Your task to perform on an android device: Search for the best lawnmowers on Lowes.com Image 0: 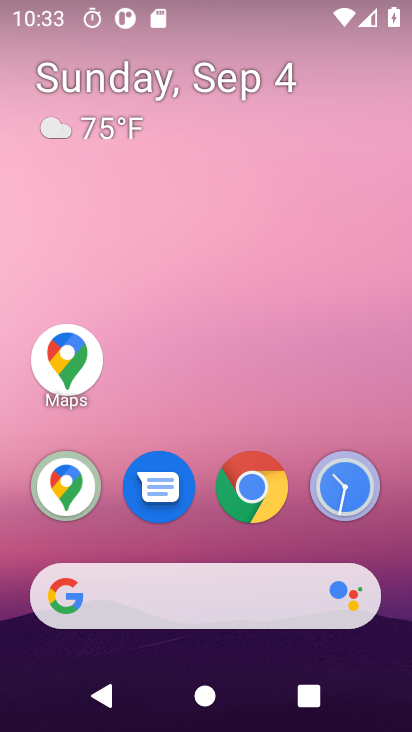
Step 0: click (270, 497)
Your task to perform on an android device: Search for the best lawnmowers on Lowes.com Image 1: 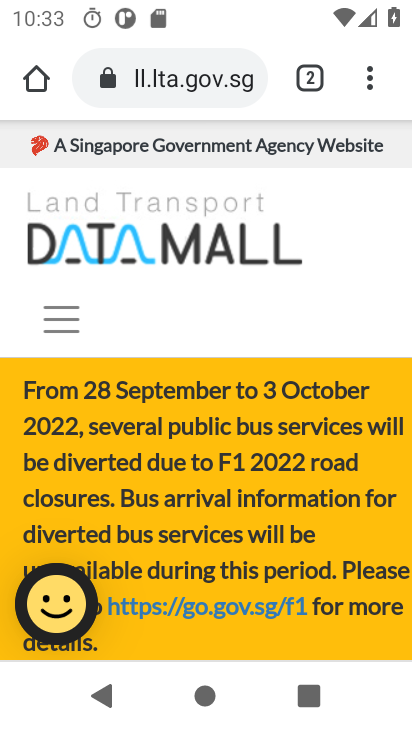
Step 1: task complete